Your task to perform on an android device: open app "Expedia: Hotels, Flights & Car" (install if not already installed) and go to login screen Image 0: 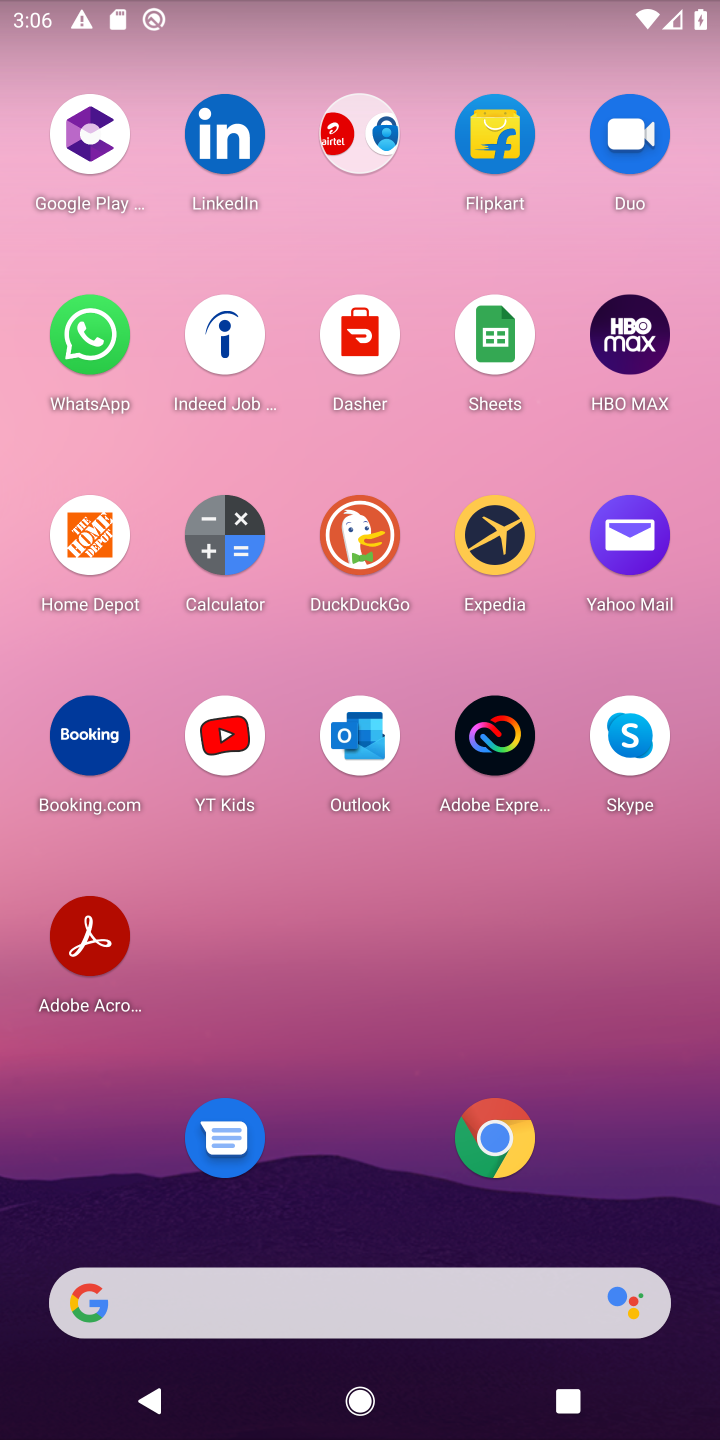
Step 0: drag from (332, 1146) to (355, 260)
Your task to perform on an android device: open app "Expedia: Hotels, Flights & Car" (install if not already installed) and go to login screen Image 1: 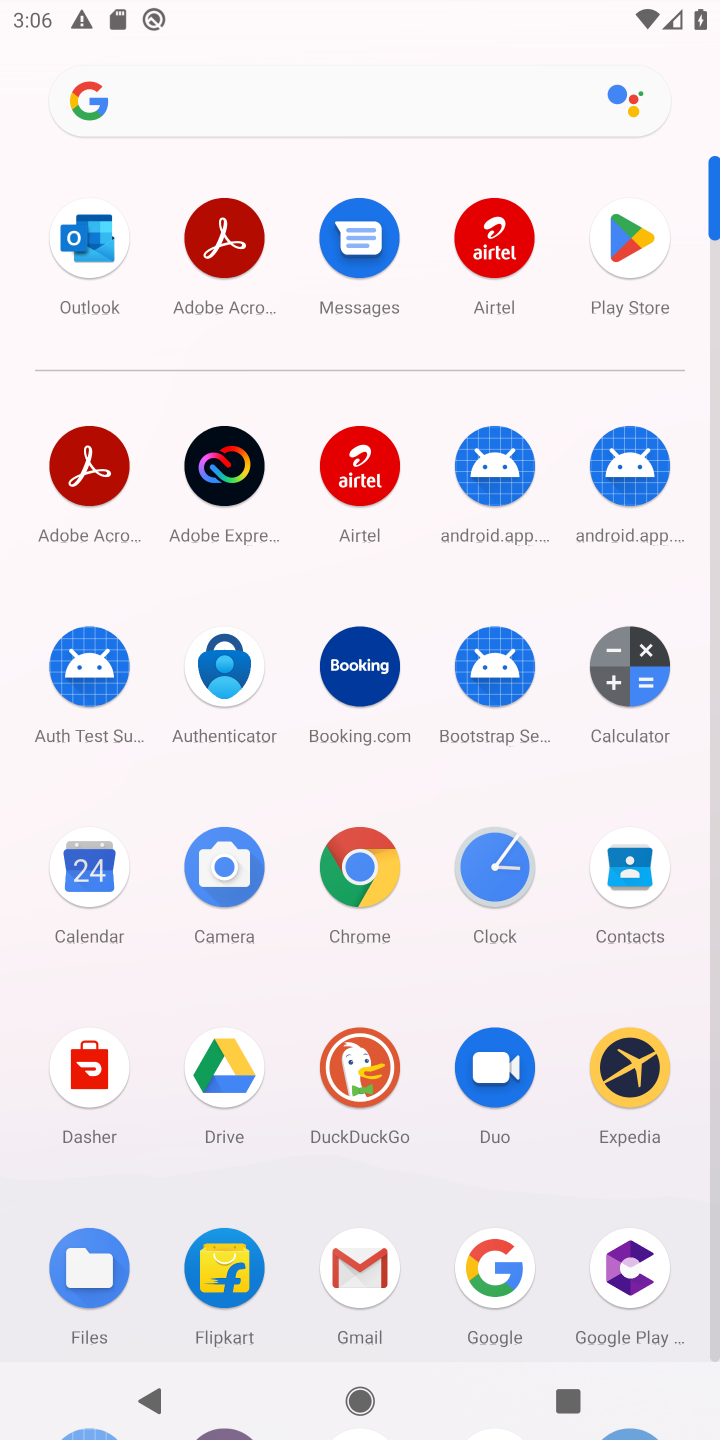
Step 1: click (624, 244)
Your task to perform on an android device: open app "Expedia: Hotels, Flights & Car" (install if not already installed) and go to login screen Image 2: 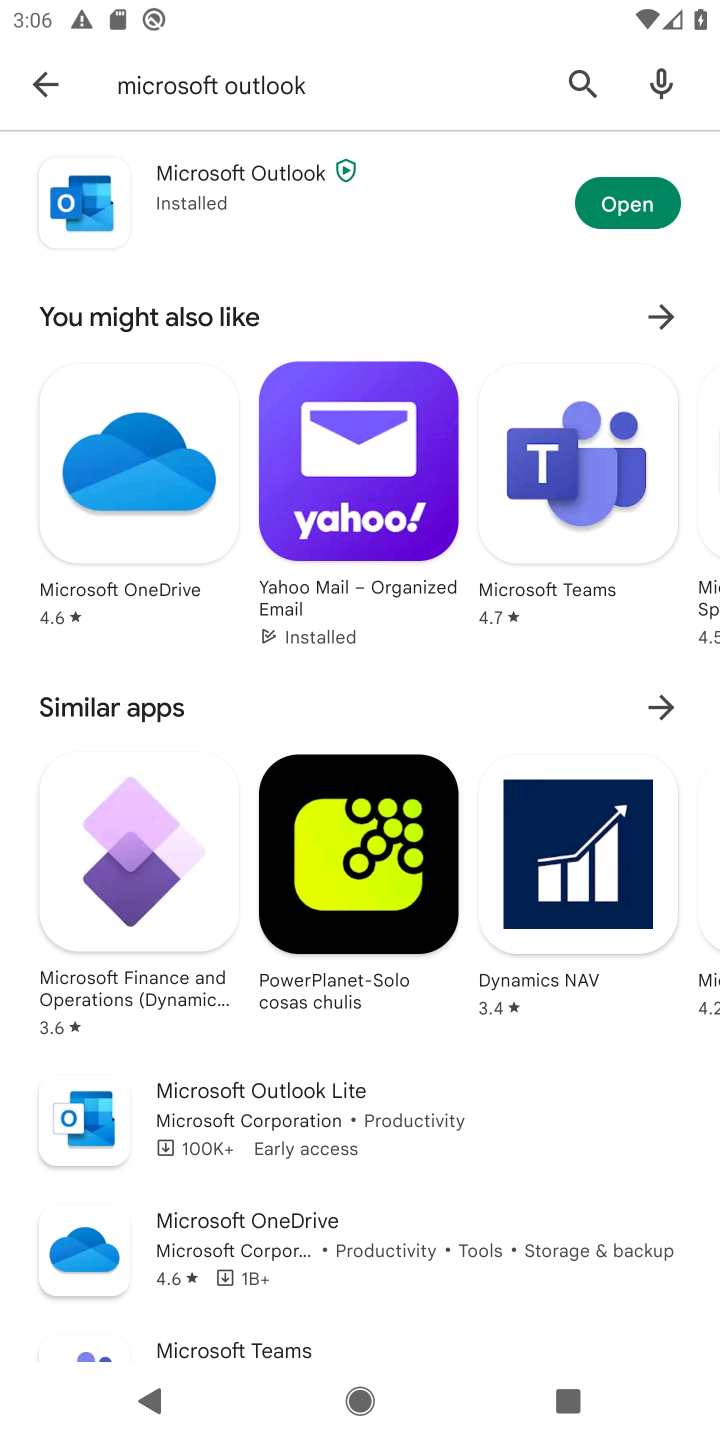
Step 2: click (575, 76)
Your task to perform on an android device: open app "Expedia: Hotels, Flights & Car" (install if not already installed) and go to login screen Image 3: 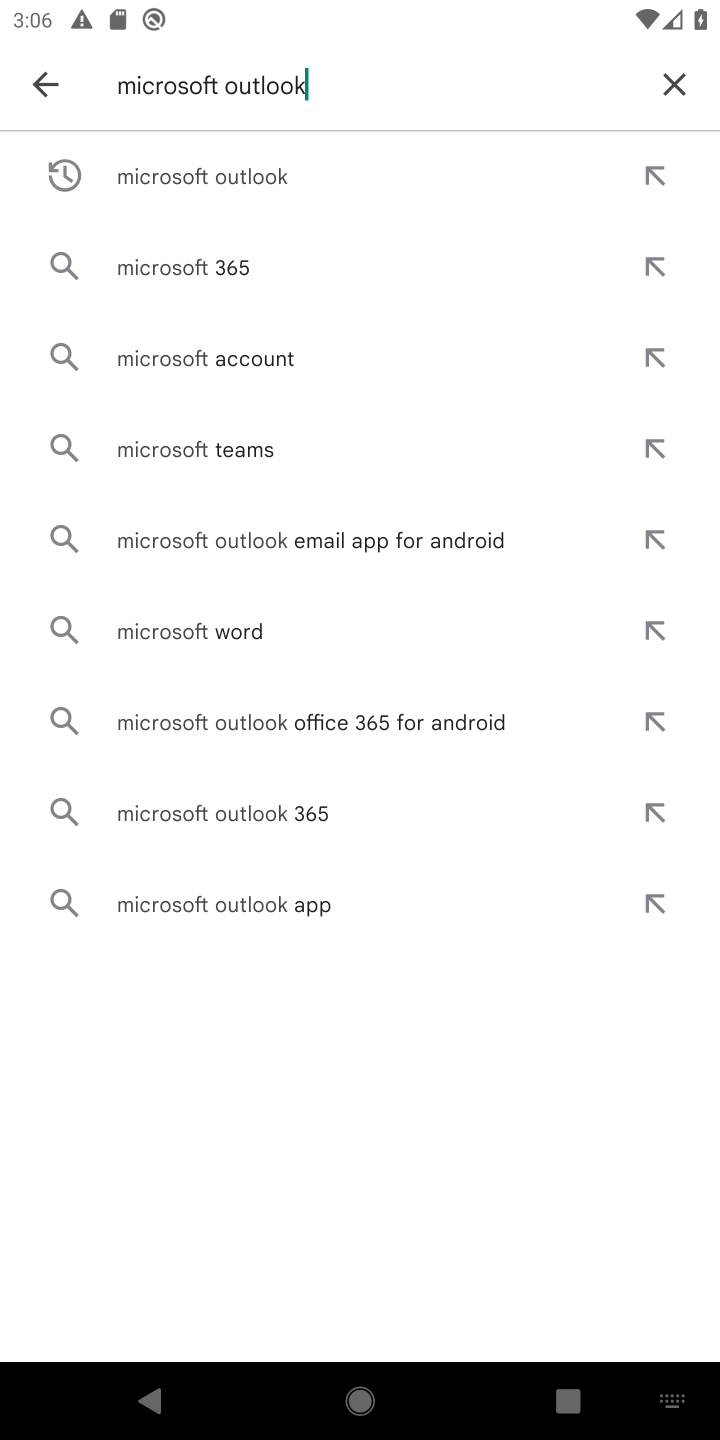
Step 3: click (666, 76)
Your task to perform on an android device: open app "Expedia: Hotels, Flights & Car" (install if not already installed) and go to login screen Image 4: 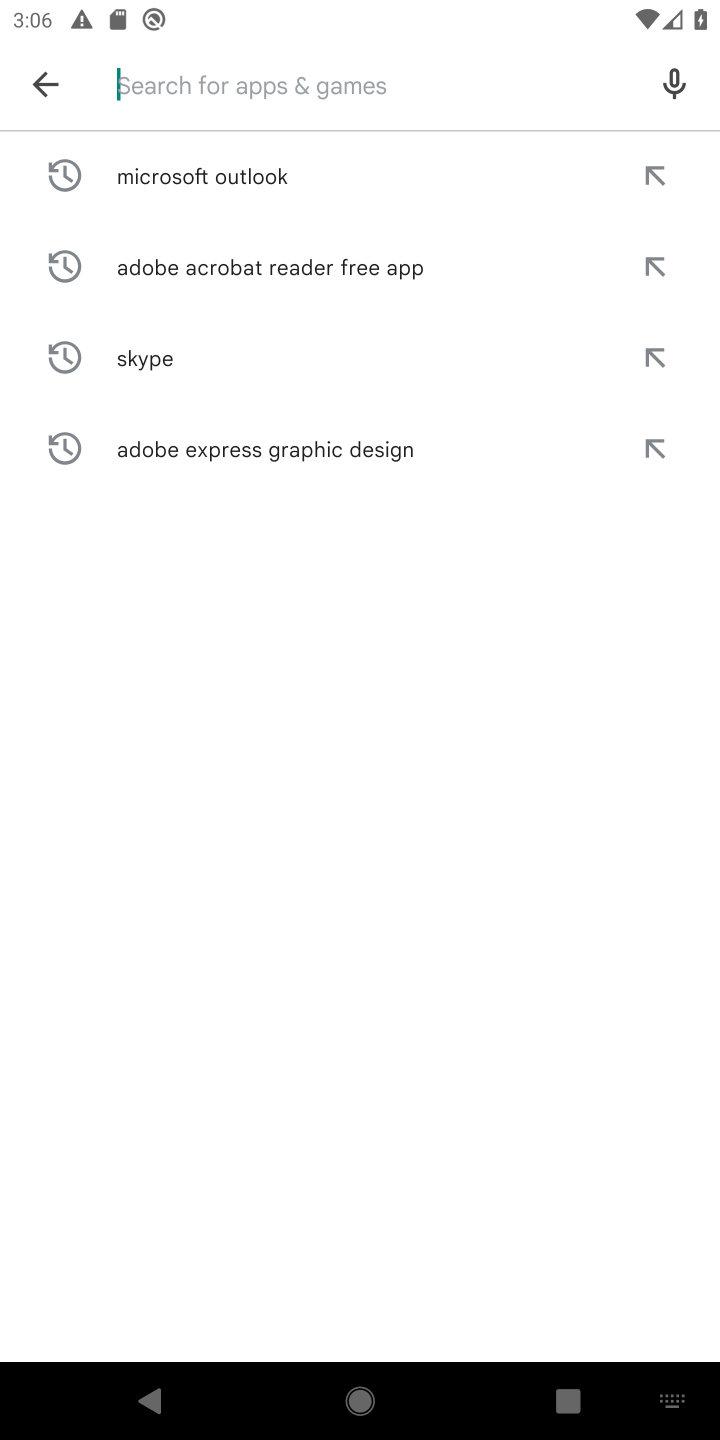
Step 4: type "Expedia: Hotels"
Your task to perform on an android device: open app "Expedia: Hotels, Flights & Car" (install if not already installed) and go to login screen Image 5: 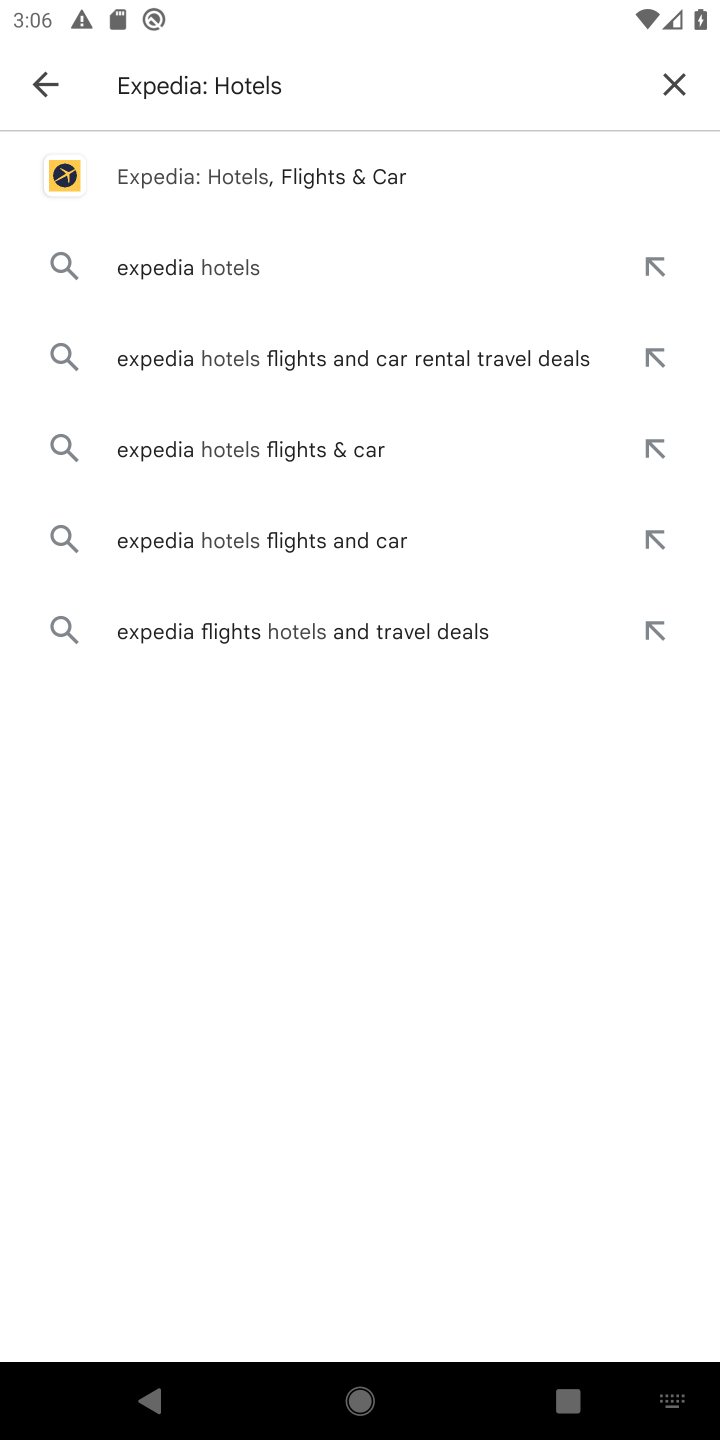
Step 5: click (221, 173)
Your task to perform on an android device: open app "Expedia: Hotels, Flights & Car" (install if not already installed) and go to login screen Image 6: 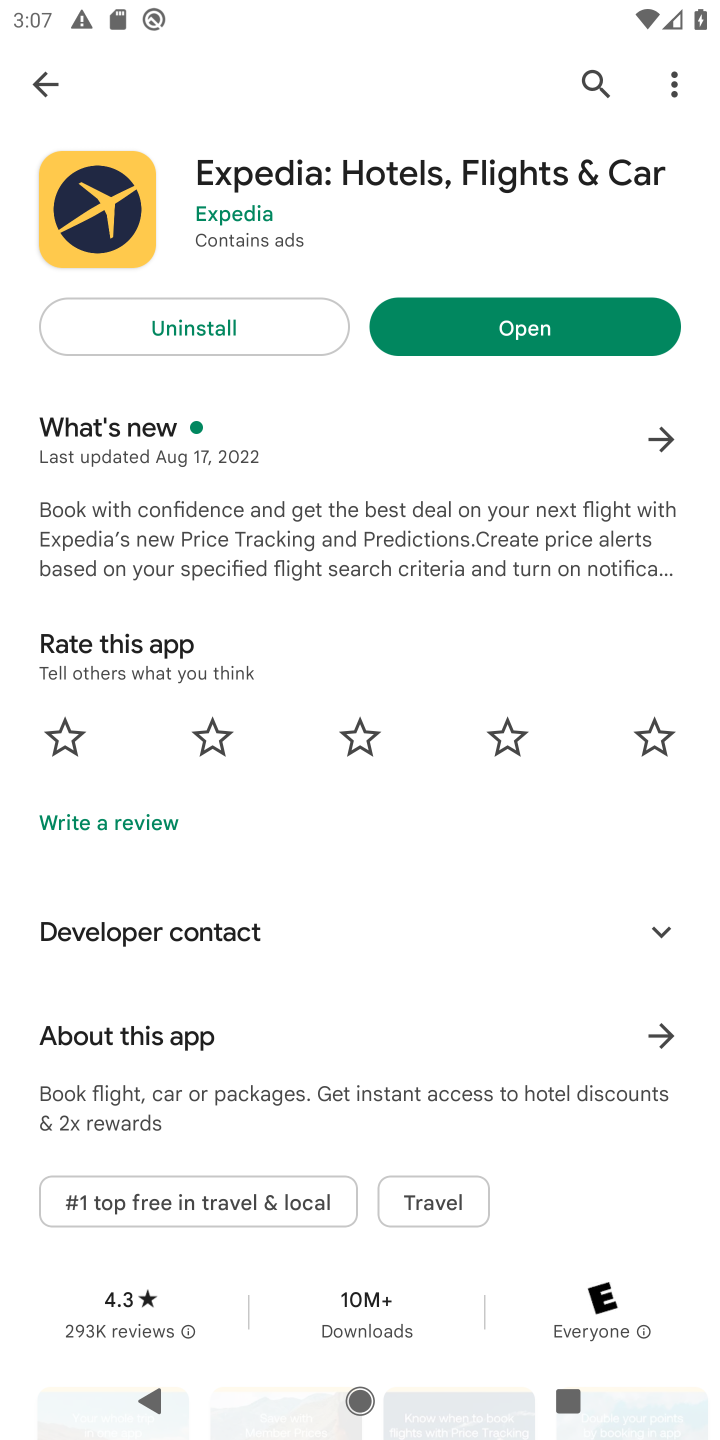
Step 6: click (541, 338)
Your task to perform on an android device: open app "Expedia: Hotels, Flights & Car" (install if not already installed) and go to login screen Image 7: 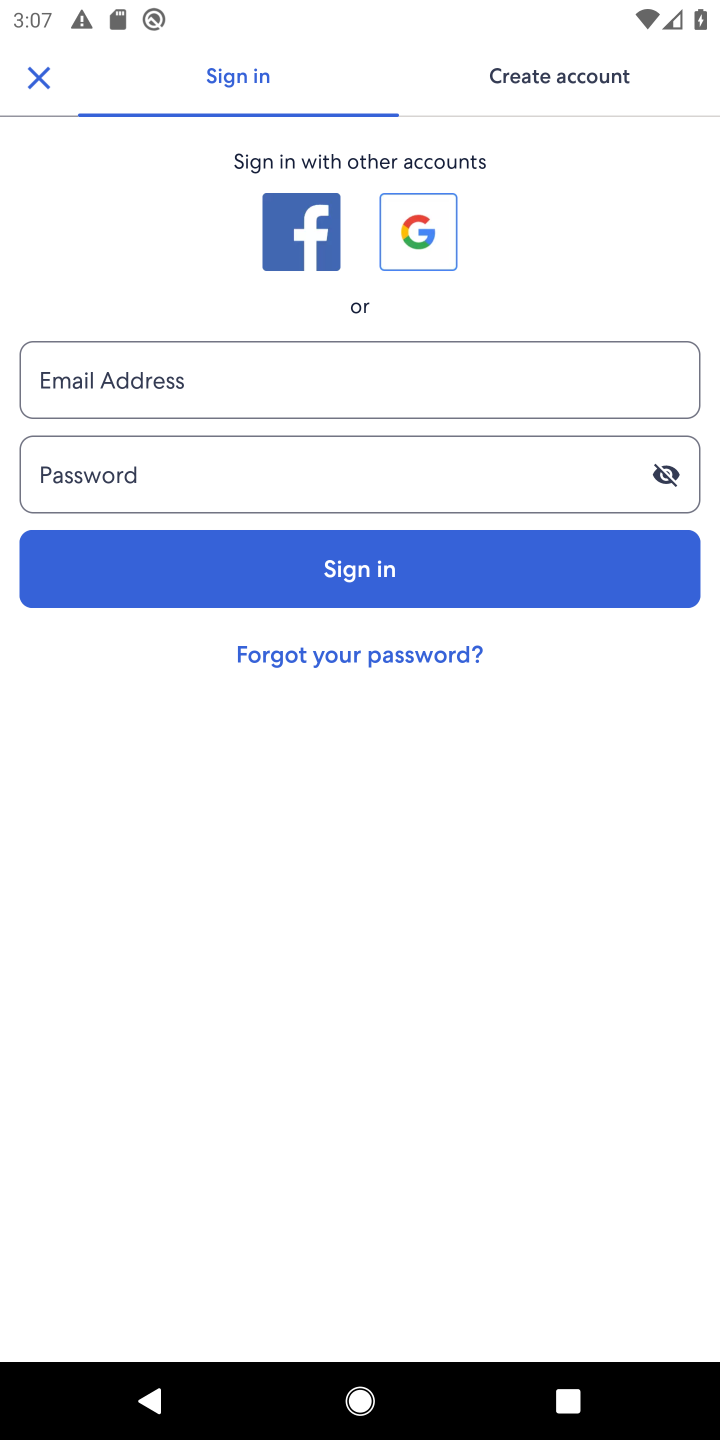
Step 7: task complete